Your task to perform on an android device: Go to settings Image 0: 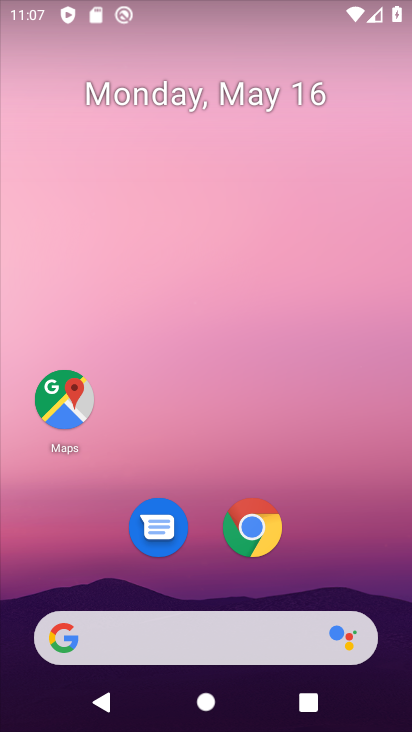
Step 0: drag from (246, 672) to (197, 259)
Your task to perform on an android device: Go to settings Image 1: 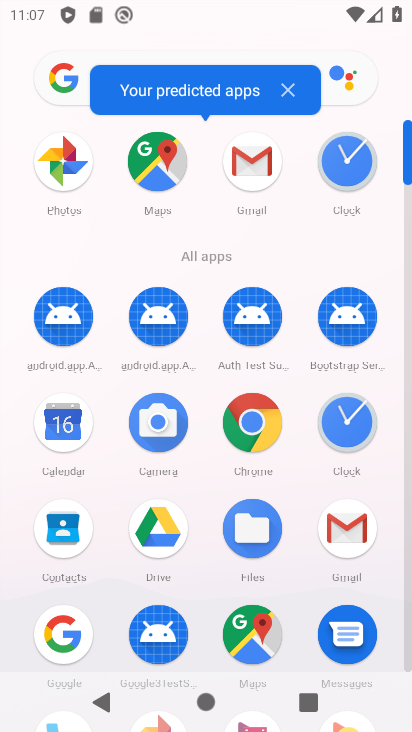
Step 1: drag from (113, 483) to (124, 284)
Your task to perform on an android device: Go to settings Image 2: 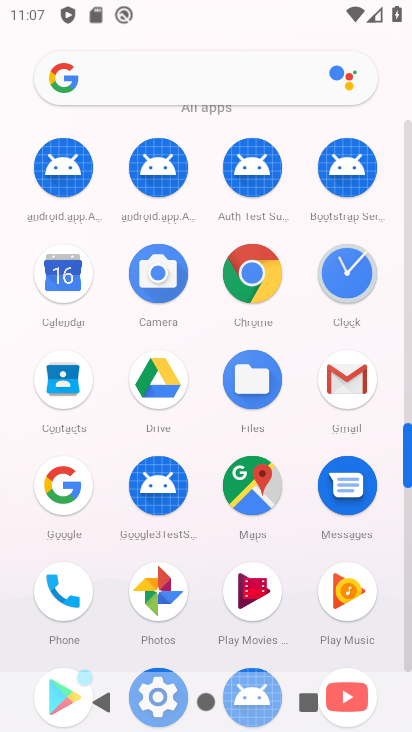
Step 2: drag from (210, 545) to (228, 404)
Your task to perform on an android device: Go to settings Image 3: 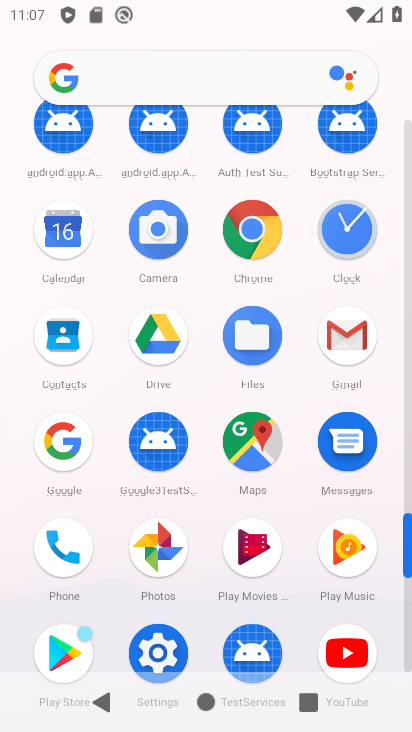
Step 3: click (157, 638)
Your task to perform on an android device: Go to settings Image 4: 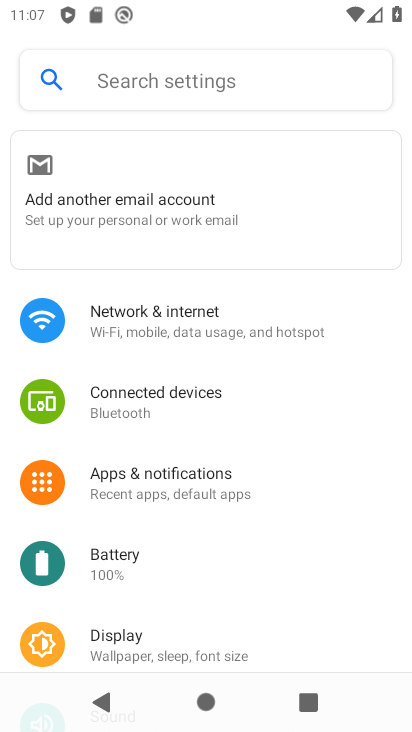
Step 4: task complete